Your task to perform on an android device: check storage Image 0: 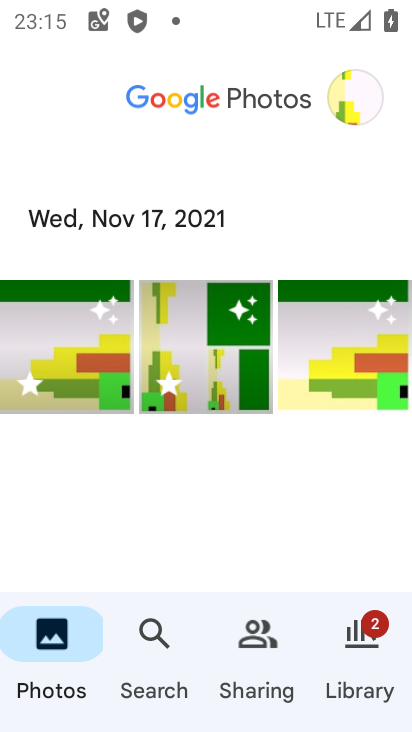
Step 0: press home button
Your task to perform on an android device: check storage Image 1: 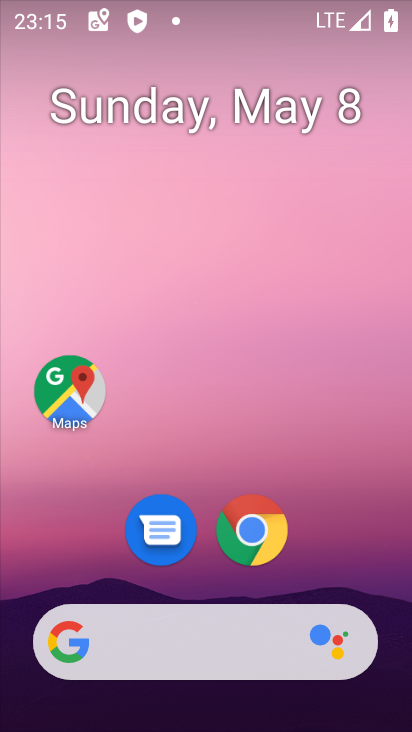
Step 1: drag from (392, 565) to (381, 96)
Your task to perform on an android device: check storage Image 2: 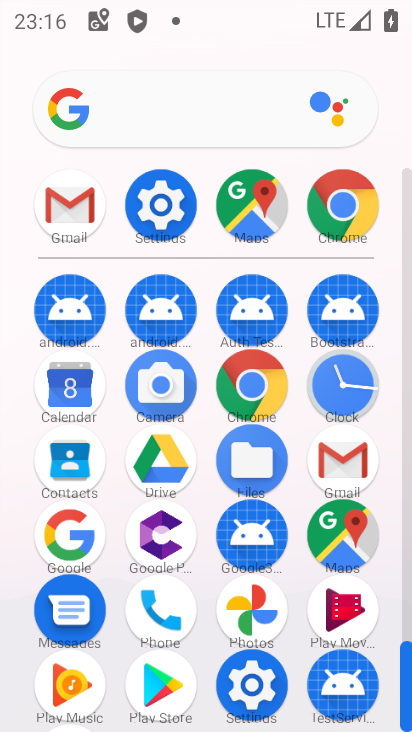
Step 2: click (255, 715)
Your task to perform on an android device: check storage Image 3: 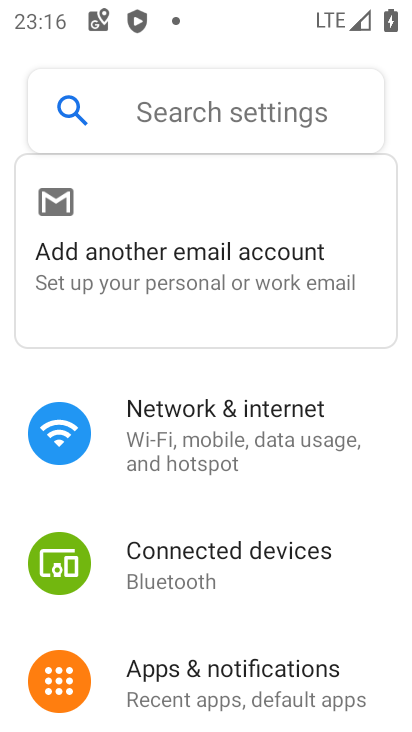
Step 3: drag from (300, 631) to (346, 421)
Your task to perform on an android device: check storage Image 4: 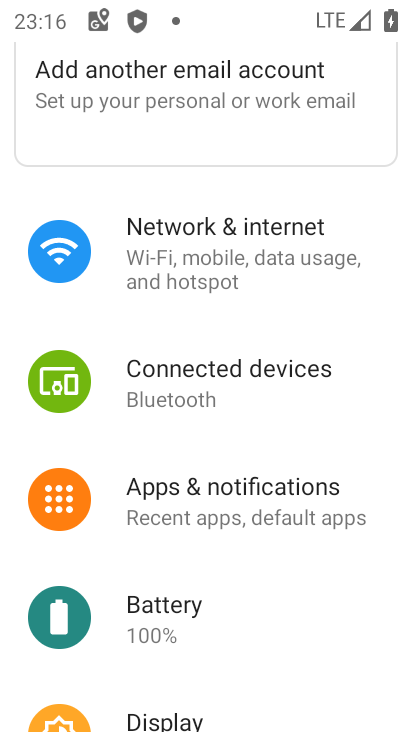
Step 4: drag from (276, 637) to (334, 344)
Your task to perform on an android device: check storage Image 5: 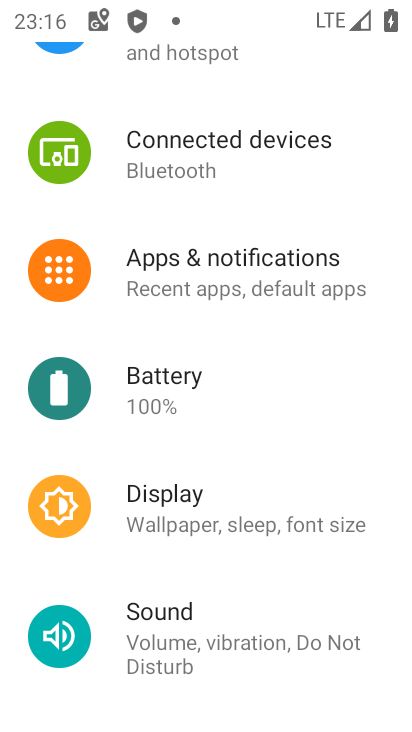
Step 5: drag from (226, 631) to (250, 338)
Your task to perform on an android device: check storage Image 6: 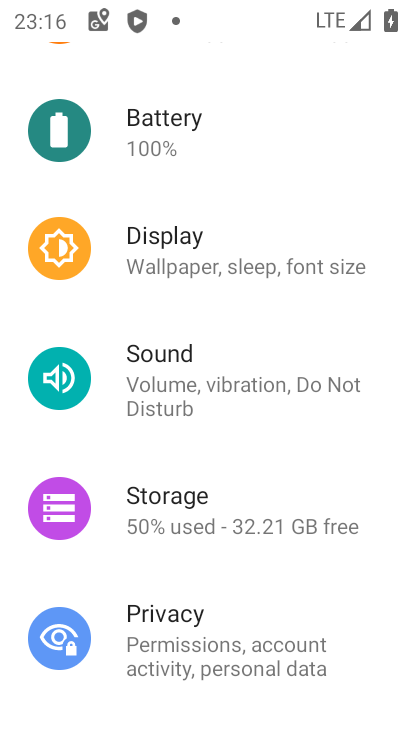
Step 6: click (249, 525)
Your task to perform on an android device: check storage Image 7: 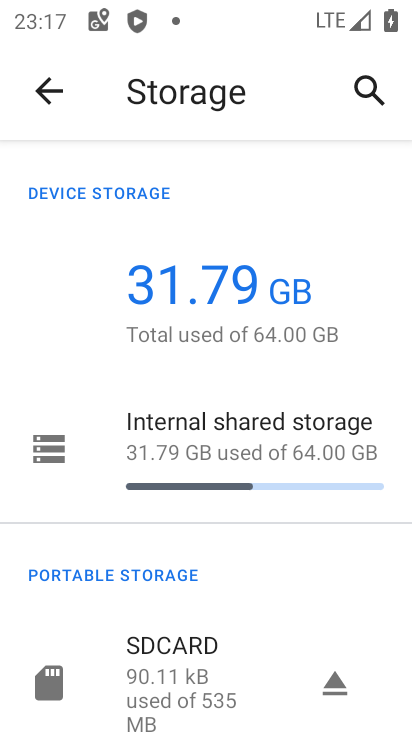
Step 7: click (45, 455)
Your task to perform on an android device: check storage Image 8: 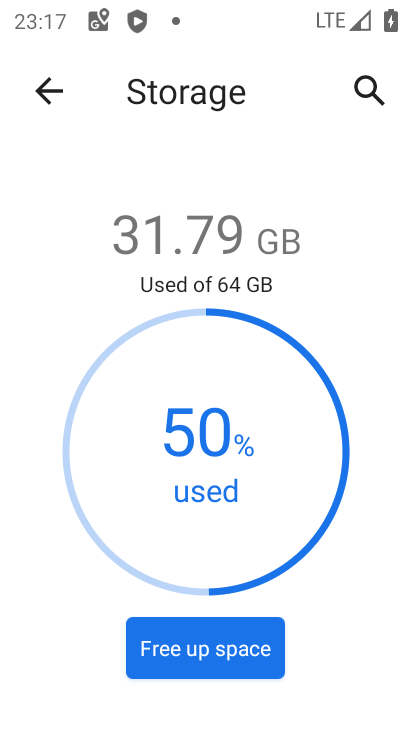
Step 8: task complete